Your task to perform on an android device: Do I have any events tomorrow? Image 0: 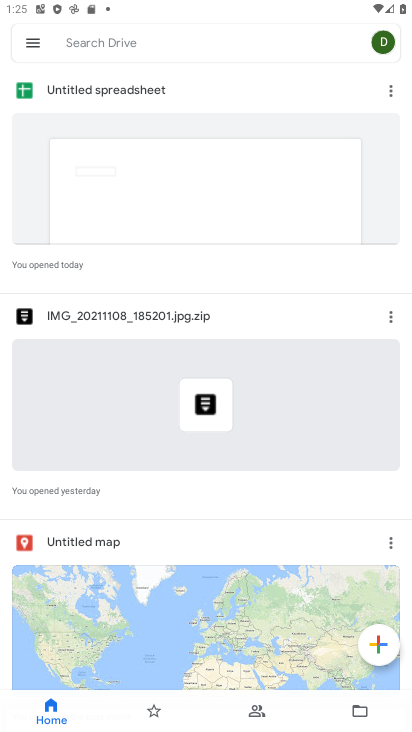
Step 0: press home button
Your task to perform on an android device: Do I have any events tomorrow? Image 1: 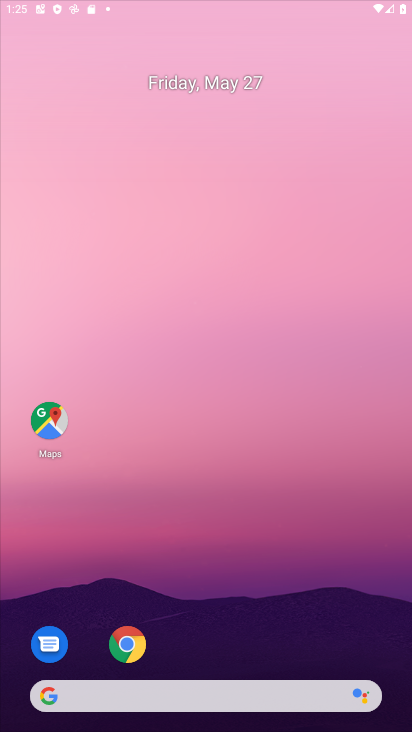
Step 1: drag from (293, 633) to (235, 18)
Your task to perform on an android device: Do I have any events tomorrow? Image 2: 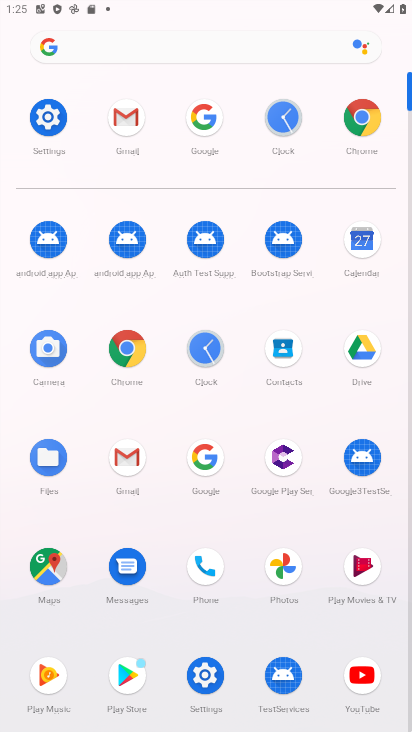
Step 2: click (363, 242)
Your task to perform on an android device: Do I have any events tomorrow? Image 3: 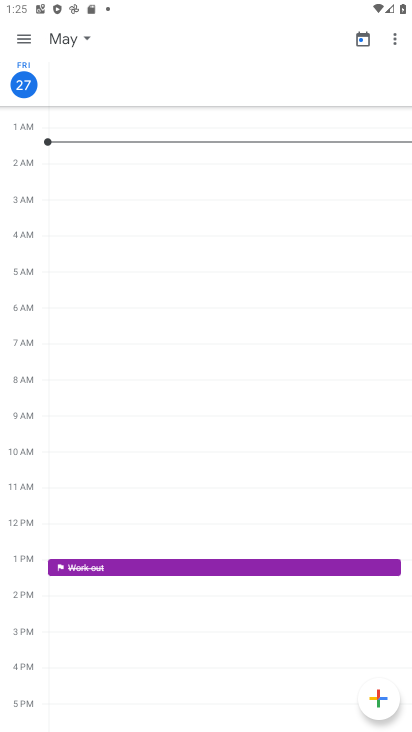
Step 3: click (58, 41)
Your task to perform on an android device: Do I have any events tomorrow? Image 4: 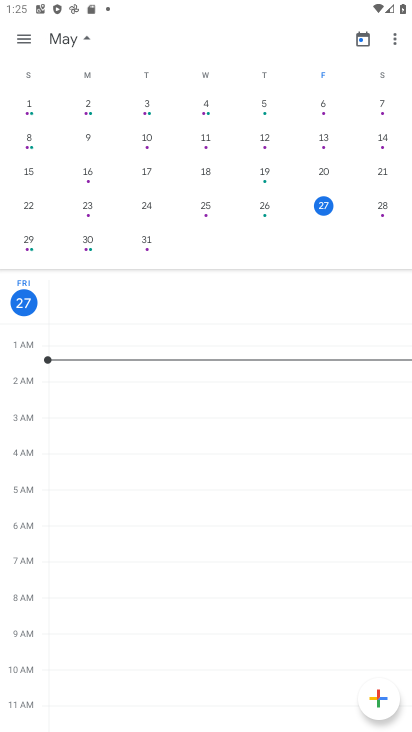
Step 4: click (383, 207)
Your task to perform on an android device: Do I have any events tomorrow? Image 5: 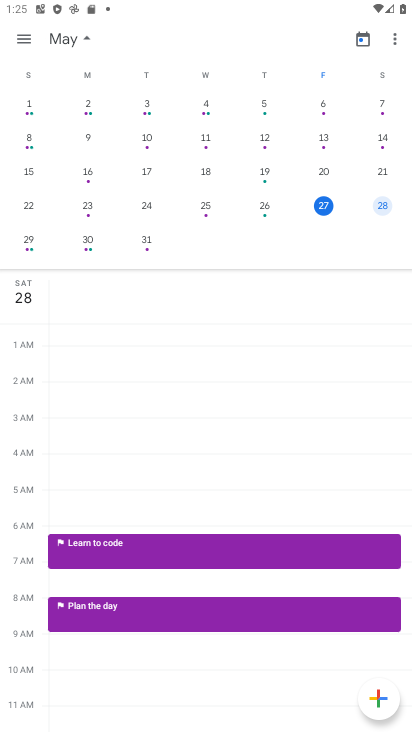
Step 5: click (159, 618)
Your task to perform on an android device: Do I have any events tomorrow? Image 6: 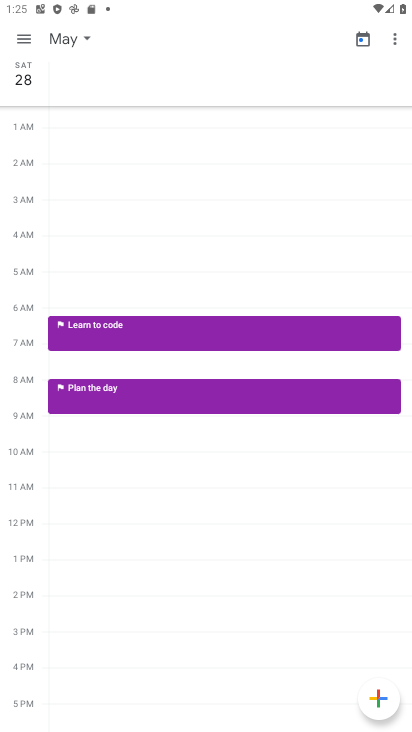
Step 6: click (162, 327)
Your task to perform on an android device: Do I have any events tomorrow? Image 7: 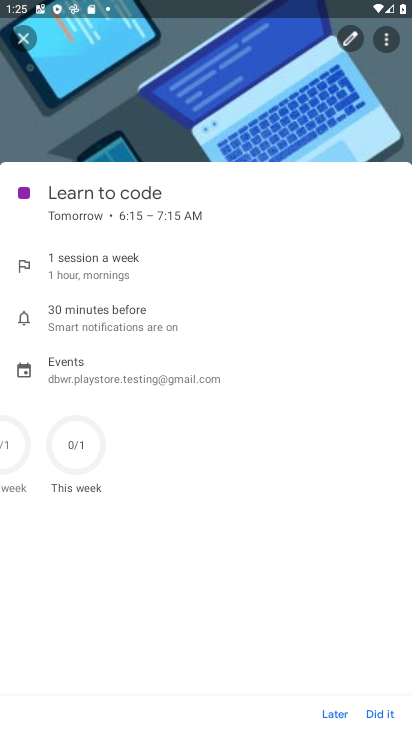
Step 7: task complete